Your task to perform on an android device: Go to Google maps Image 0: 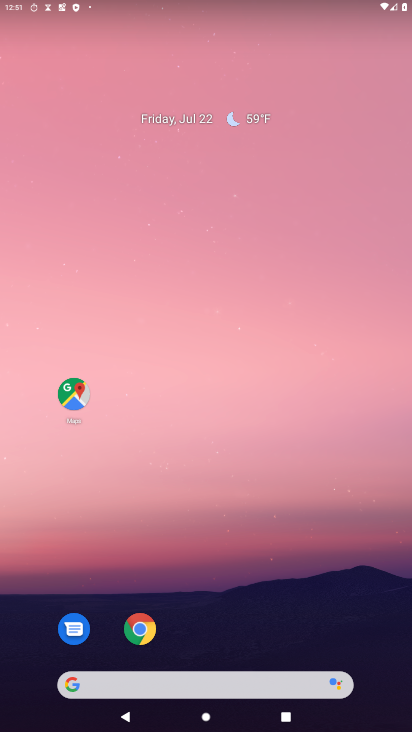
Step 0: drag from (179, 655) to (214, 74)
Your task to perform on an android device: Go to Google maps Image 1: 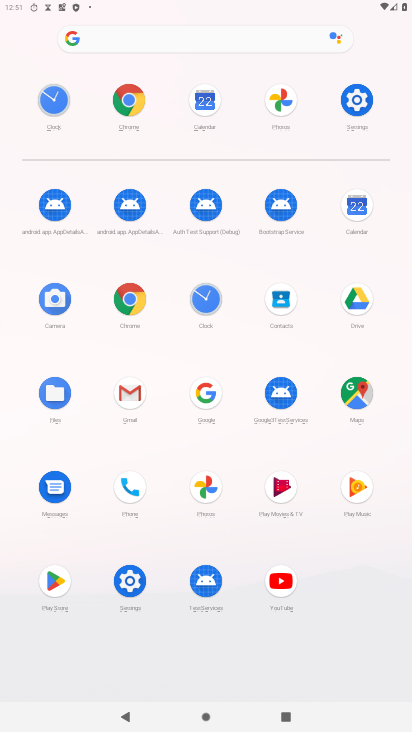
Step 1: click (356, 387)
Your task to perform on an android device: Go to Google maps Image 2: 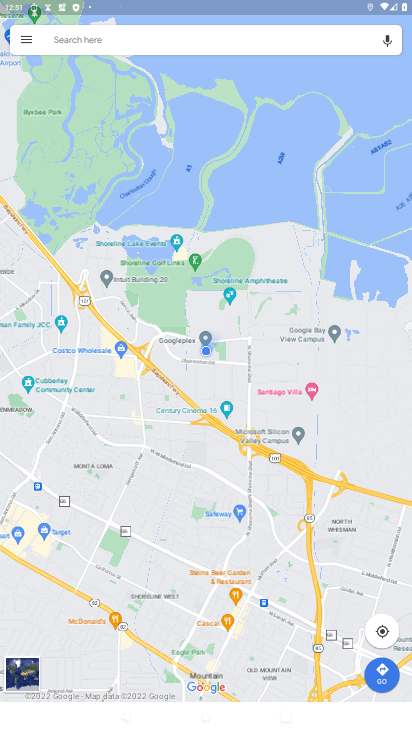
Step 2: task complete